Your task to perform on an android device: Open Yahoo.com Image 0: 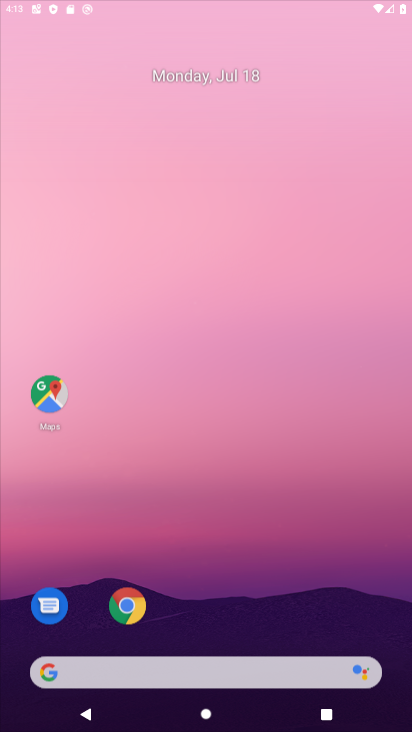
Step 0: click (355, 175)
Your task to perform on an android device: Open Yahoo.com Image 1: 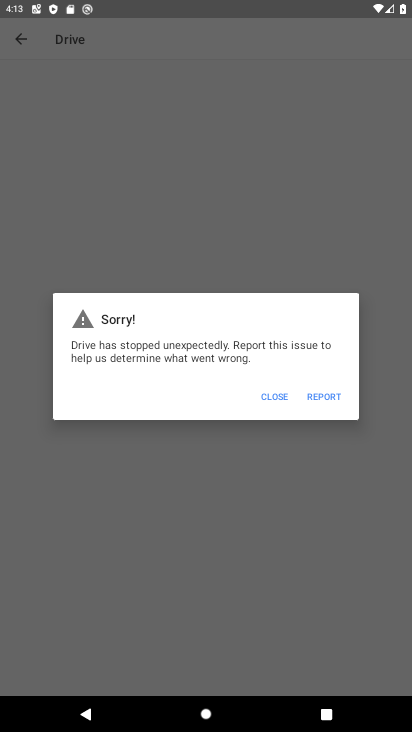
Step 1: press home button
Your task to perform on an android device: Open Yahoo.com Image 2: 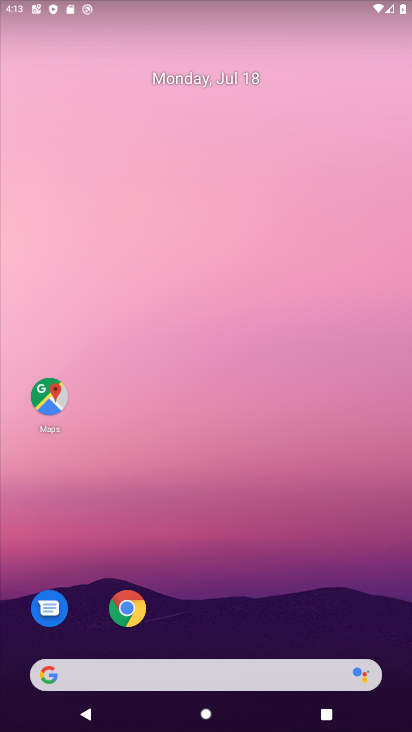
Step 2: click (112, 610)
Your task to perform on an android device: Open Yahoo.com Image 3: 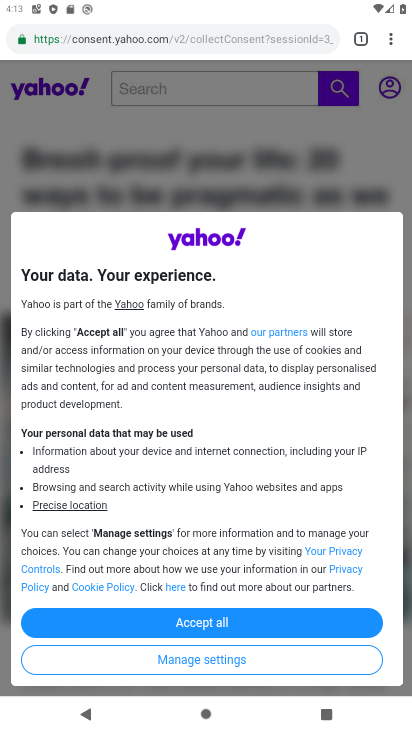
Step 3: task complete